Your task to perform on an android device: Open Reddit.com Image 0: 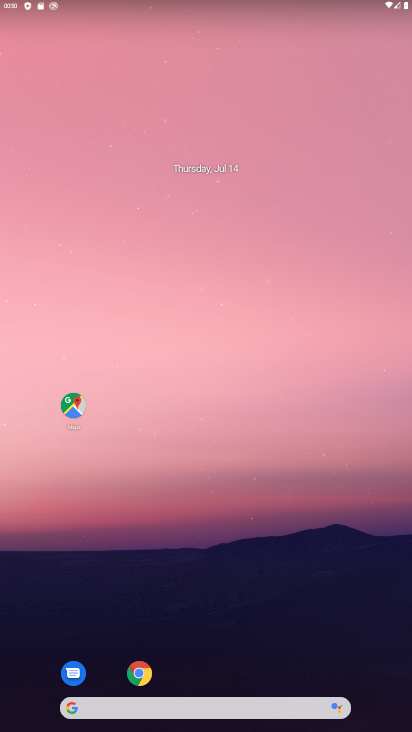
Step 0: click (142, 674)
Your task to perform on an android device: Open Reddit.com Image 1: 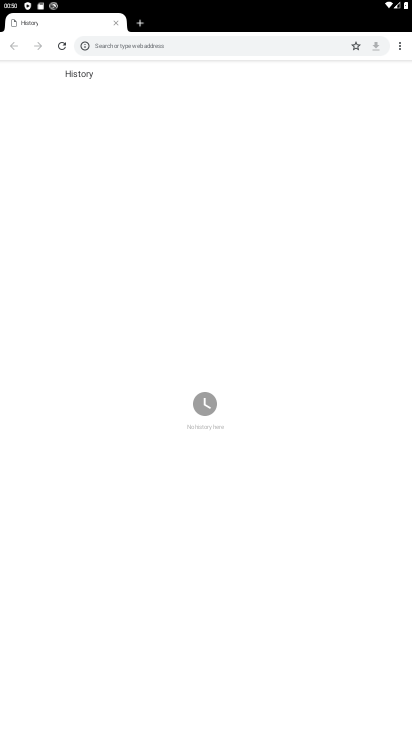
Step 1: click (98, 49)
Your task to perform on an android device: Open Reddit.com Image 2: 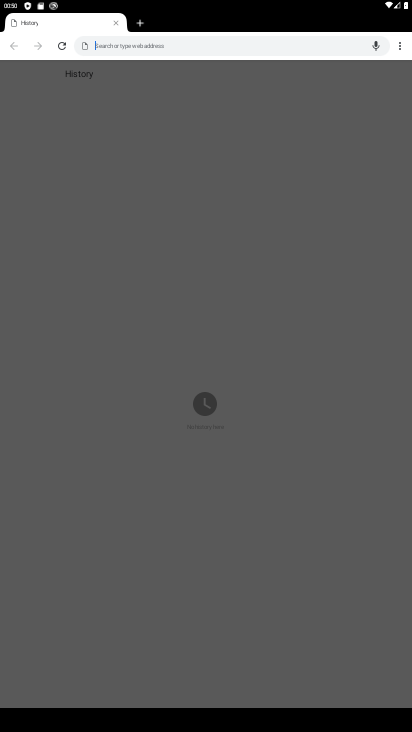
Step 2: type "reddit.com"
Your task to perform on an android device: Open Reddit.com Image 3: 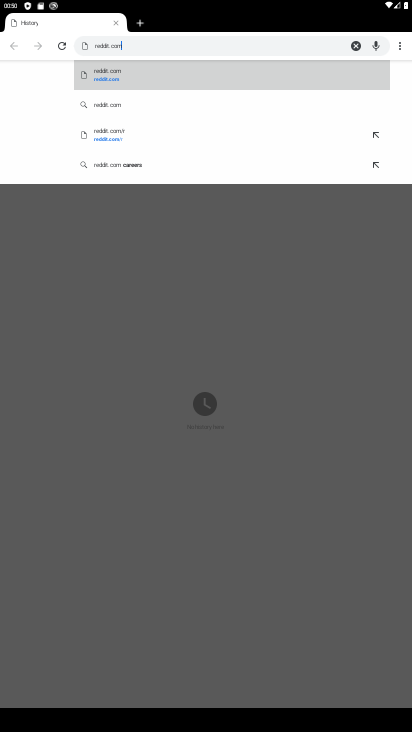
Step 3: click (120, 84)
Your task to perform on an android device: Open Reddit.com Image 4: 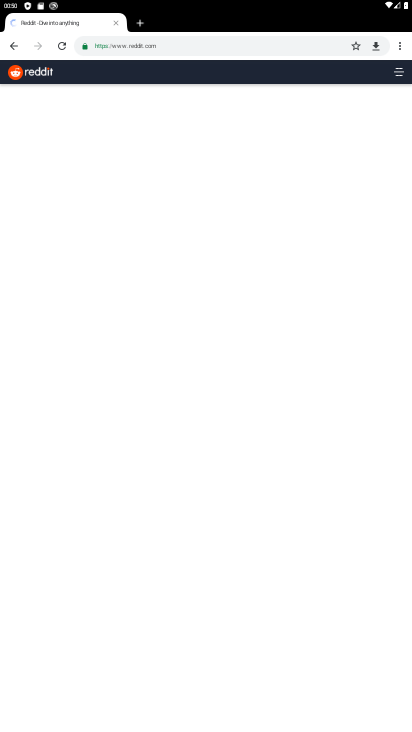
Step 4: task complete